Your task to perform on an android device: check google app version Image 0: 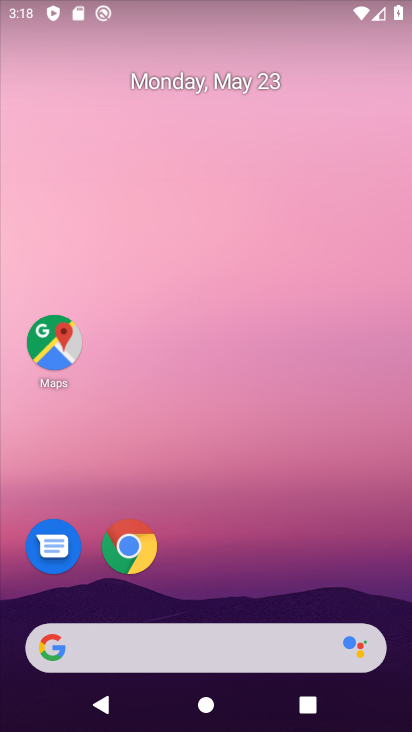
Step 0: press home button
Your task to perform on an android device: check google app version Image 1: 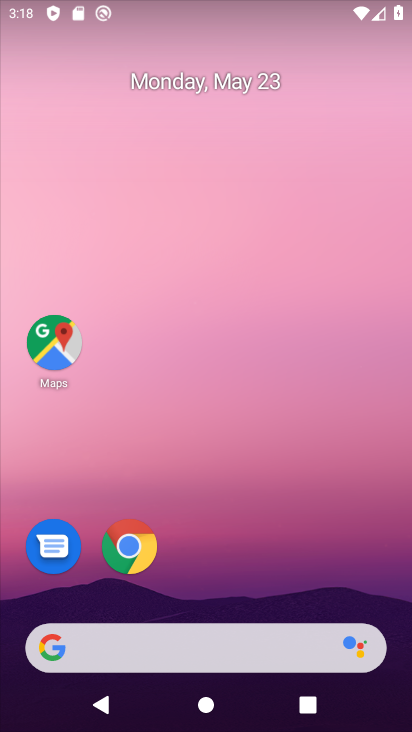
Step 1: drag from (258, 405) to (227, 23)
Your task to perform on an android device: check google app version Image 2: 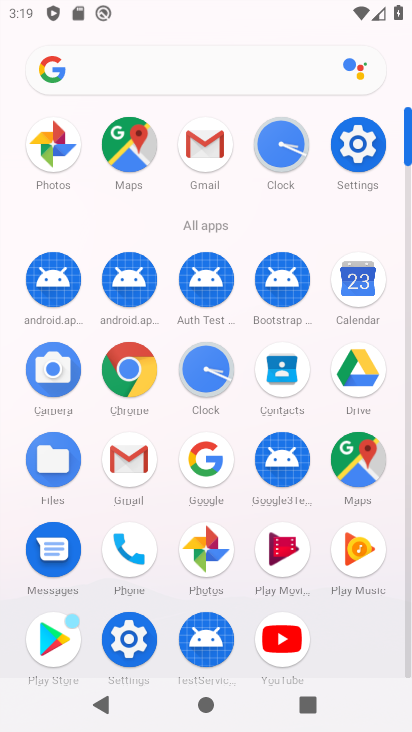
Step 2: click (208, 480)
Your task to perform on an android device: check google app version Image 3: 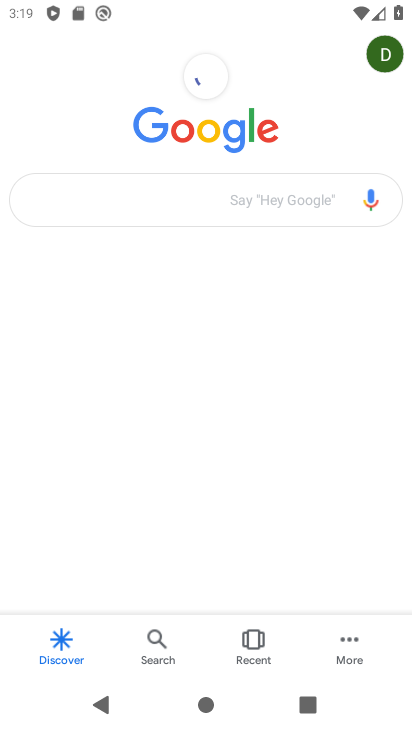
Step 3: click (341, 656)
Your task to perform on an android device: check google app version Image 4: 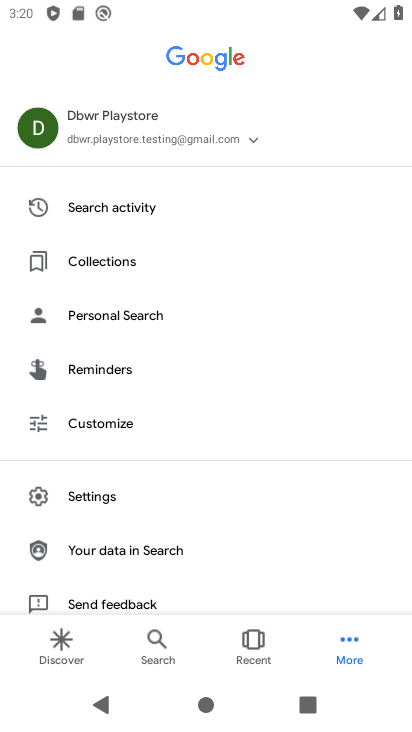
Step 4: drag from (110, 503) to (81, 188)
Your task to perform on an android device: check google app version Image 5: 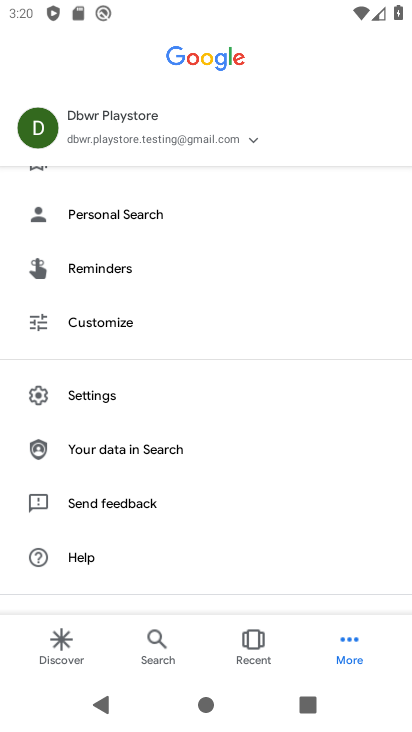
Step 5: drag from (141, 522) to (209, 317)
Your task to perform on an android device: check google app version Image 6: 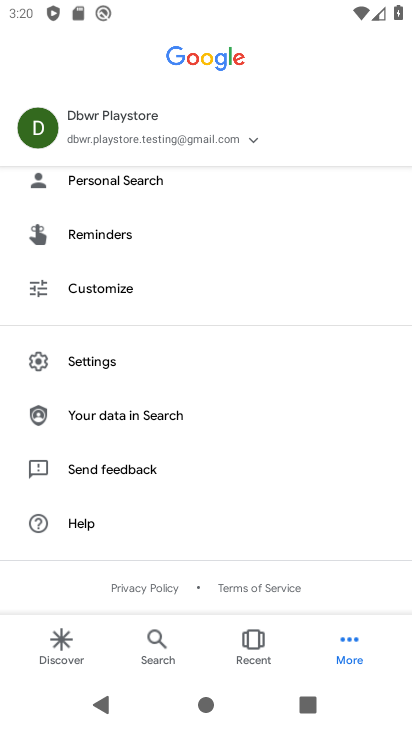
Step 6: click (112, 356)
Your task to perform on an android device: check google app version Image 7: 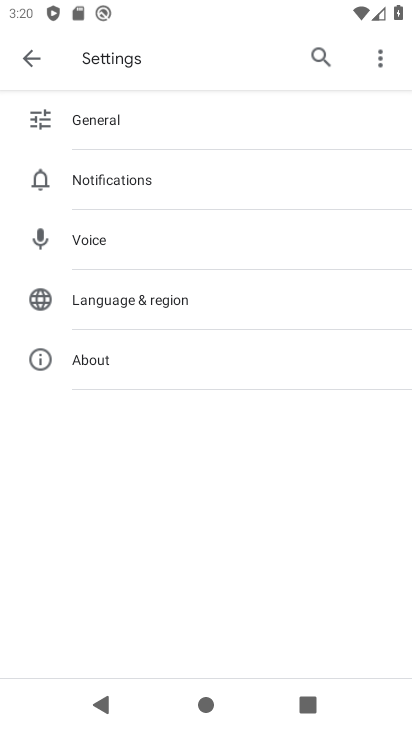
Step 7: click (86, 365)
Your task to perform on an android device: check google app version Image 8: 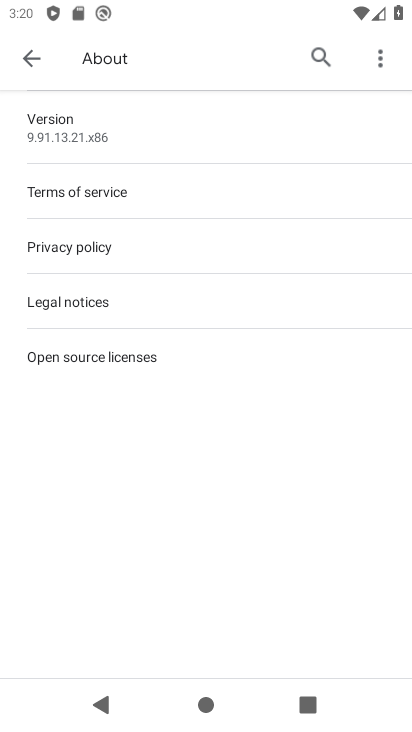
Step 8: task complete